Your task to perform on an android device: manage bookmarks in the chrome app Image 0: 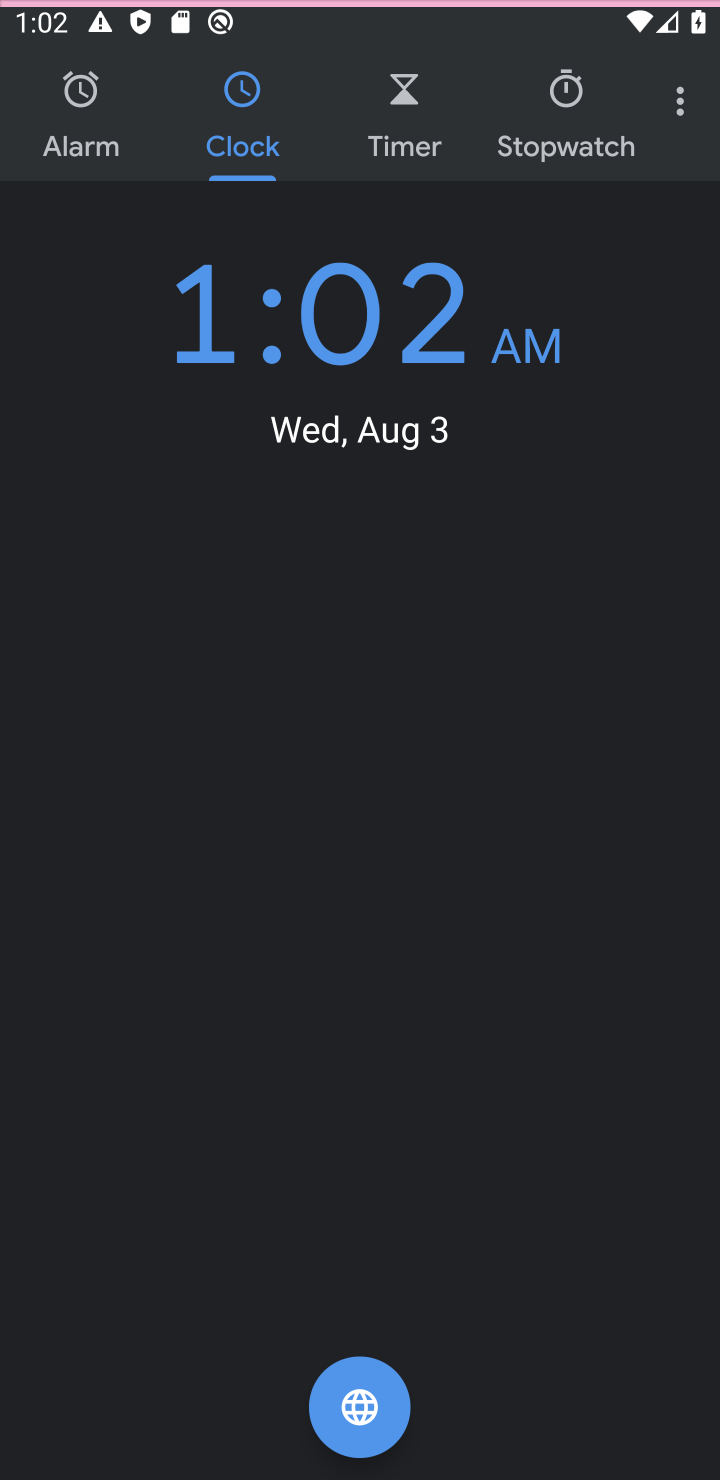
Step 0: press back button
Your task to perform on an android device: manage bookmarks in the chrome app Image 1: 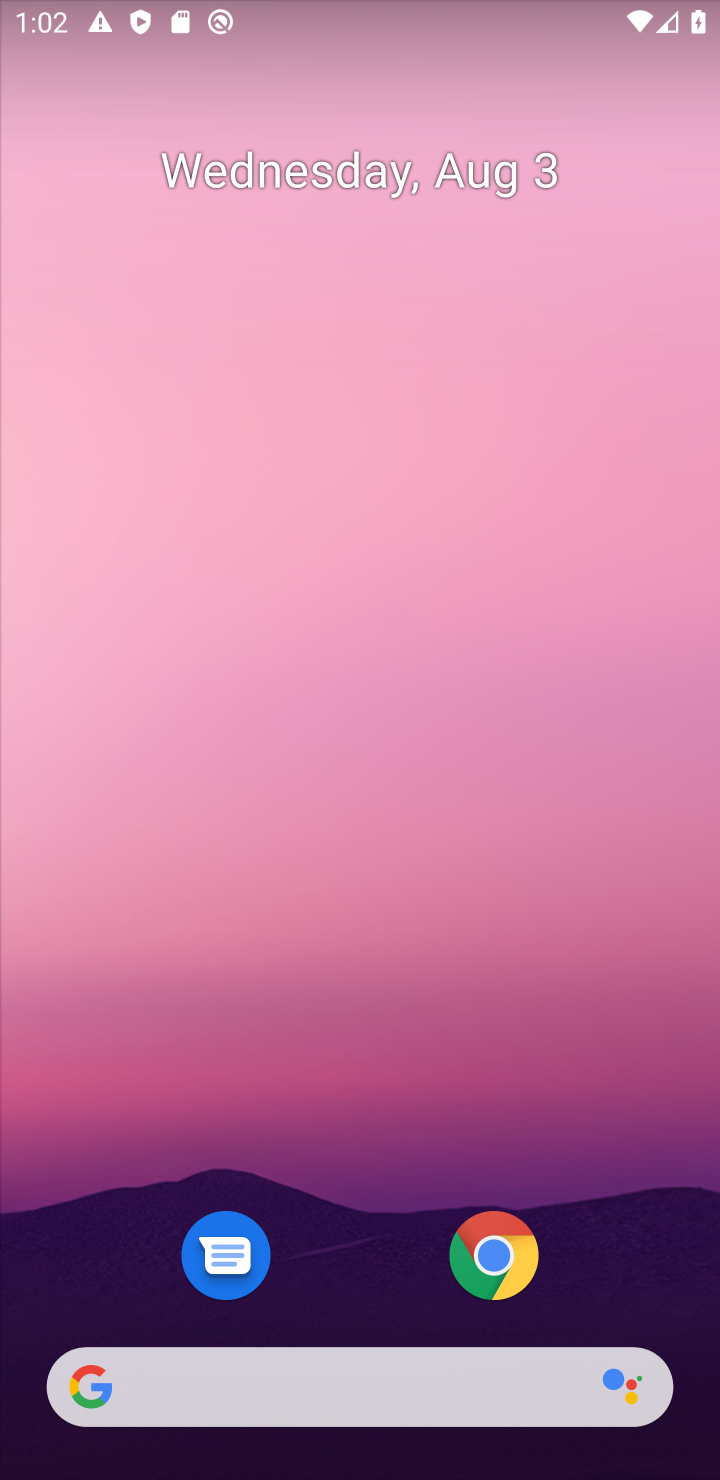
Step 1: click (520, 1257)
Your task to perform on an android device: manage bookmarks in the chrome app Image 2: 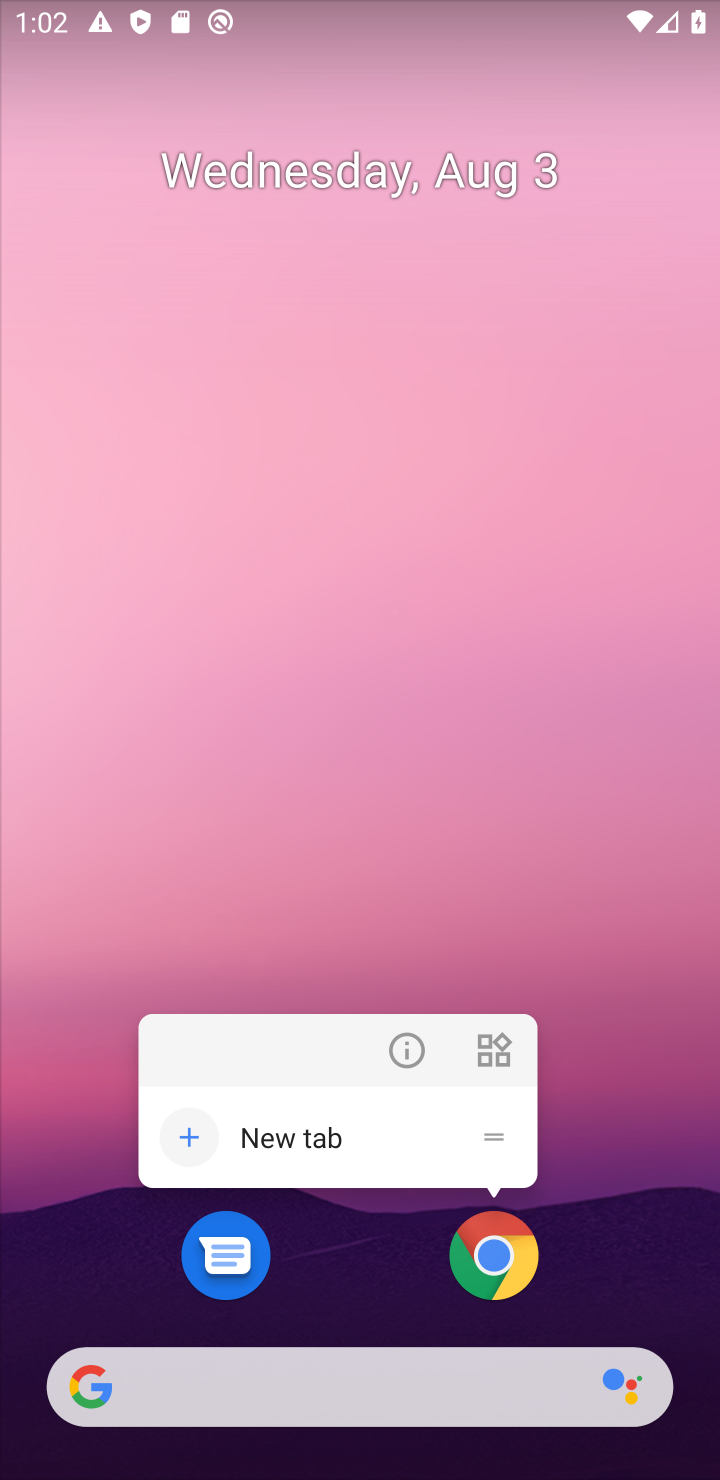
Step 2: click (520, 1257)
Your task to perform on an android device: manage bookmarks in the chrome app Image 3: 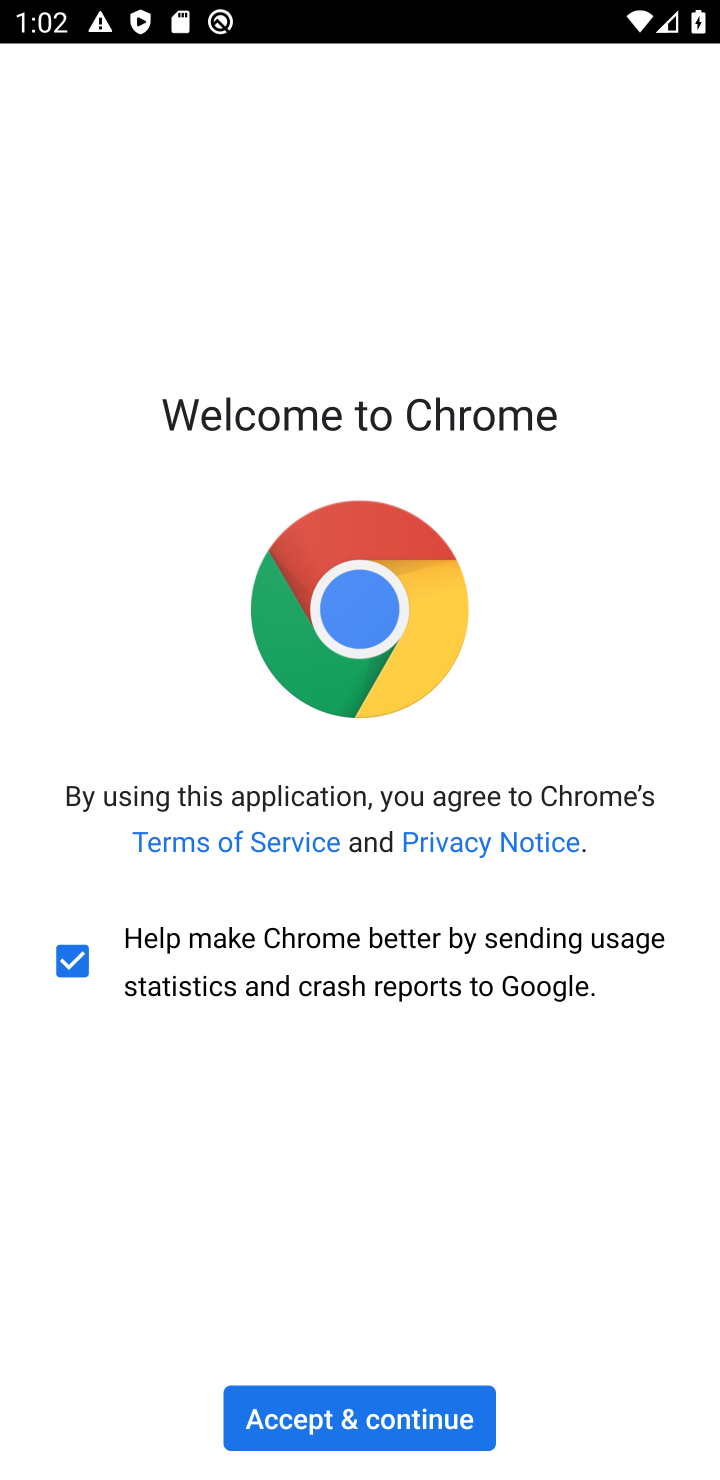
Step 3: click (397, 1416)
Your task to perform on an android device: manage bookmarks in the chrome app Image 4: 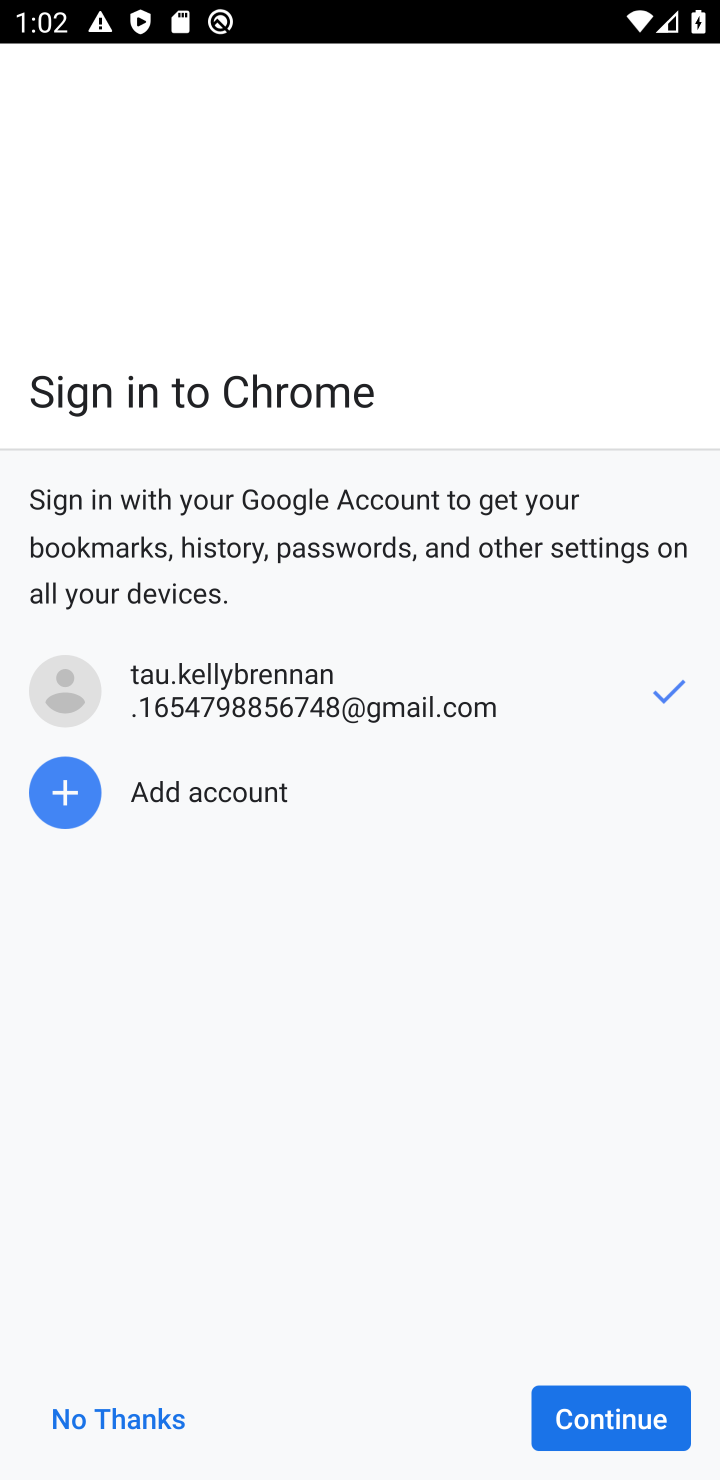
Step 4: click (557, 1410)
Your task to perform on an android device: manage bookmarks in the chrome app Image 5: 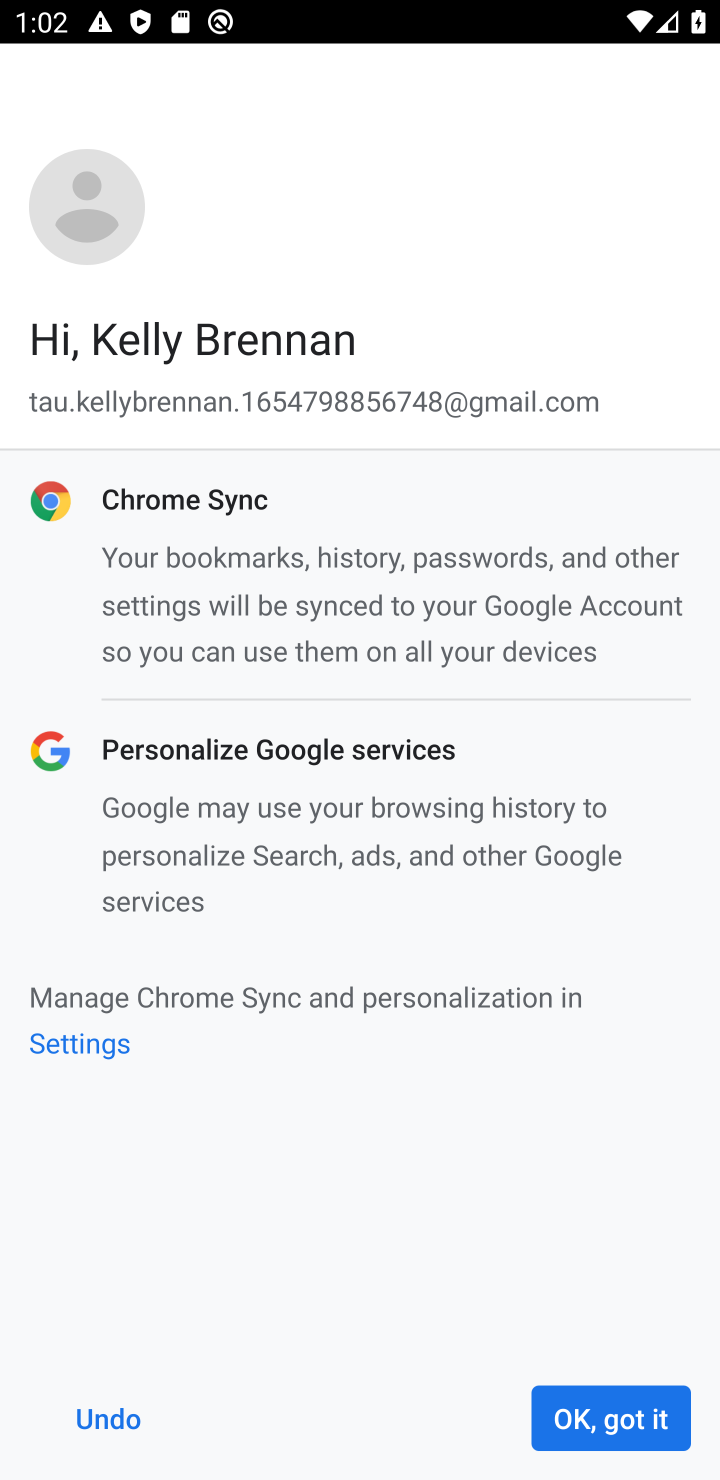
Step 5: click (596, 1430)
Your task to perform on an android device: manage bookmarks in the chrome app Image 6: 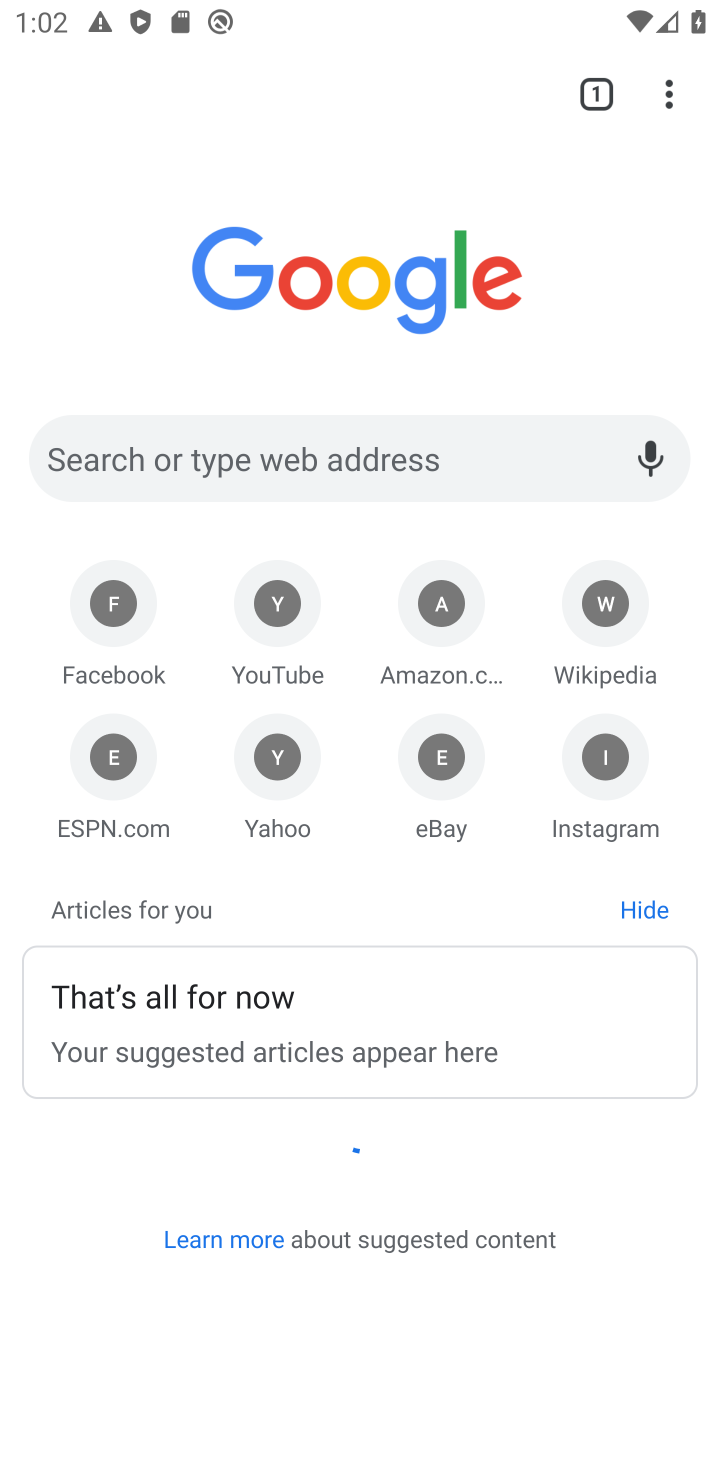
Step 6: click (668, 93)
Your task to perform on an android device: manage bookmarks in the chrome app Image 7: 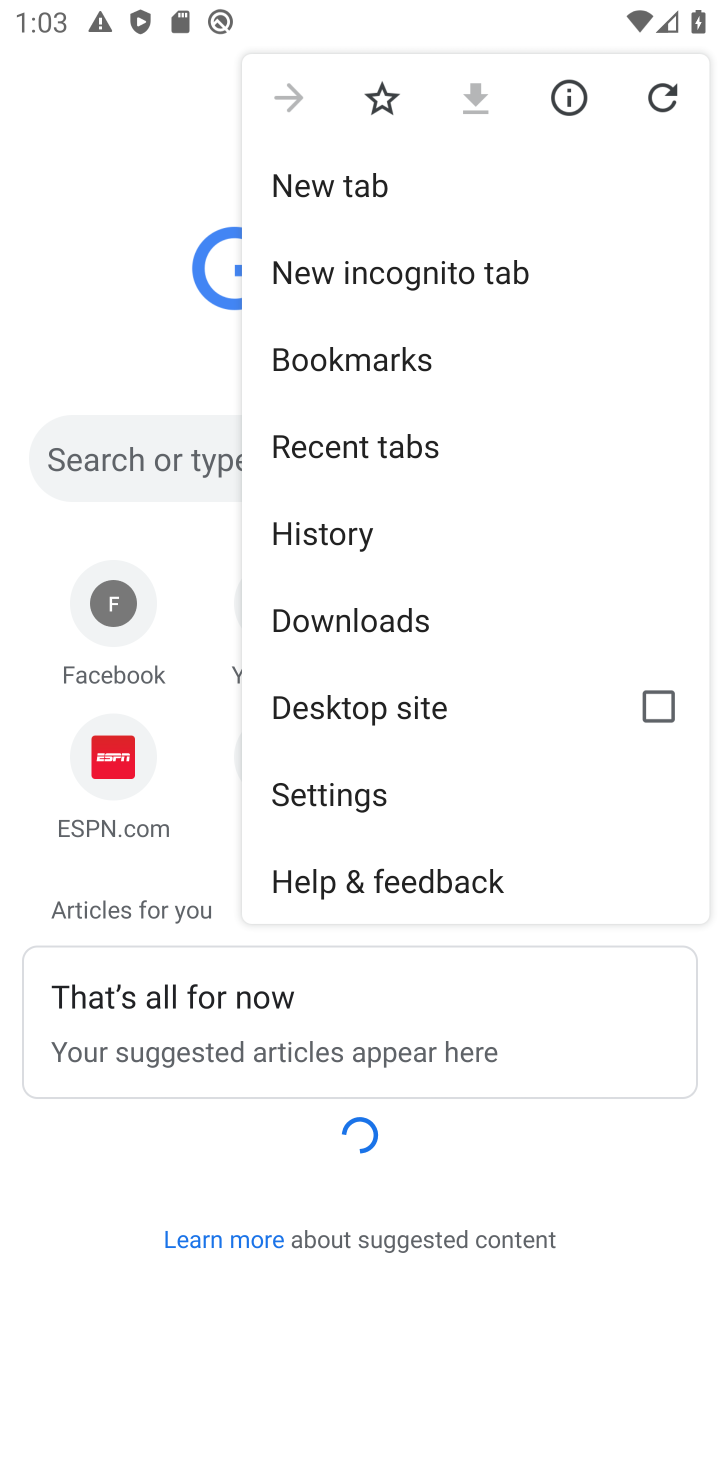
Step 7: click (497, 368)
Your task to perform on an android device: manage bookmarks in the chrome app Image 8: 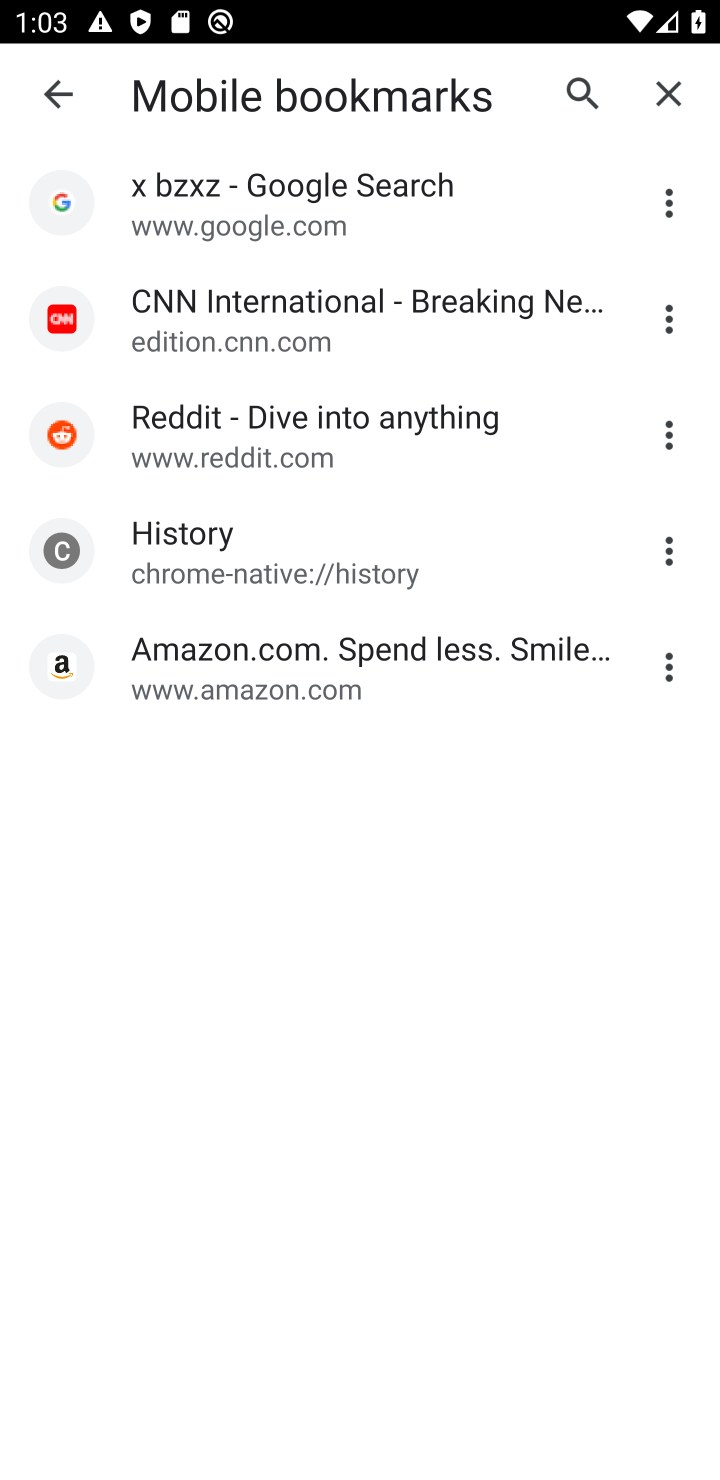
Step 8: click (342, 313)
Your task to perform on an android device: manage bookmarks in the chrome app Image 9: 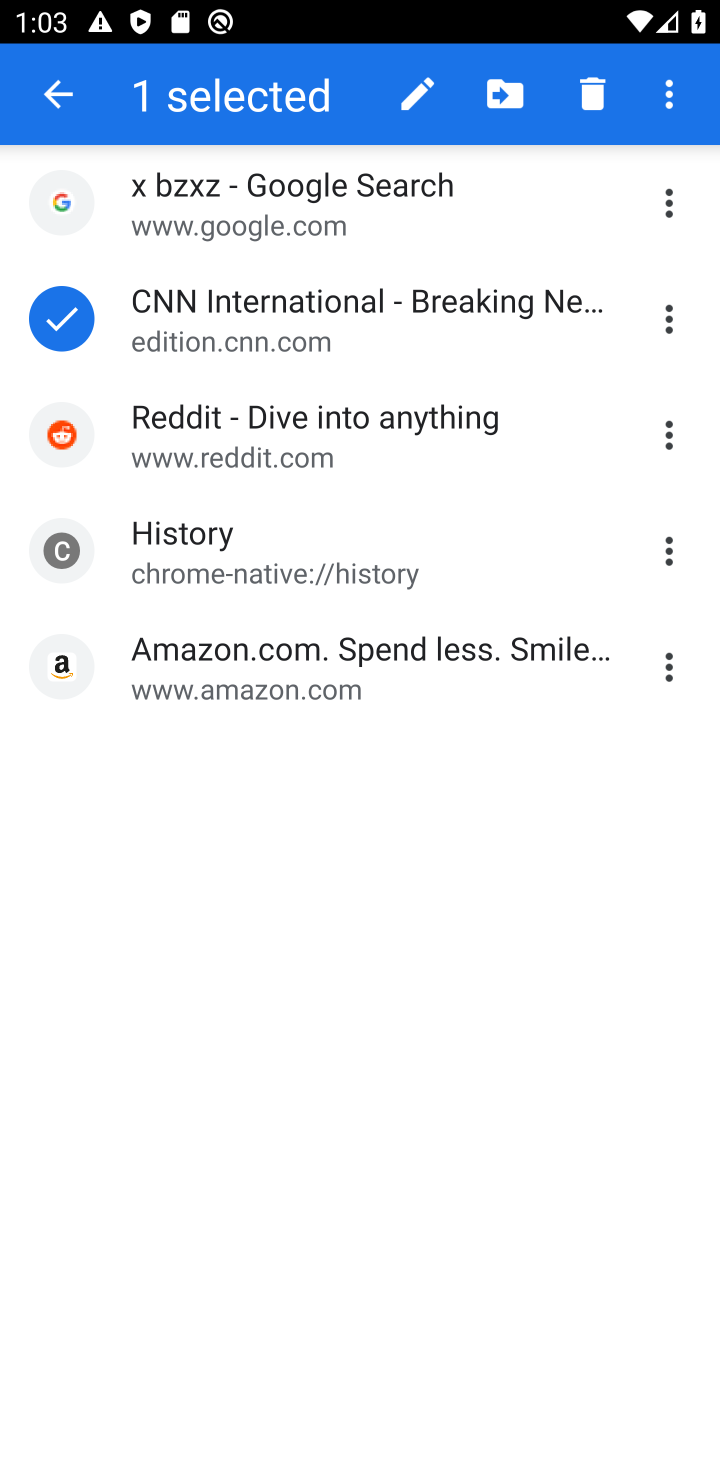
Step 9: click (515, 96)
Your task to perform on an android device: manage bookmarks in the chrome app Image 10: 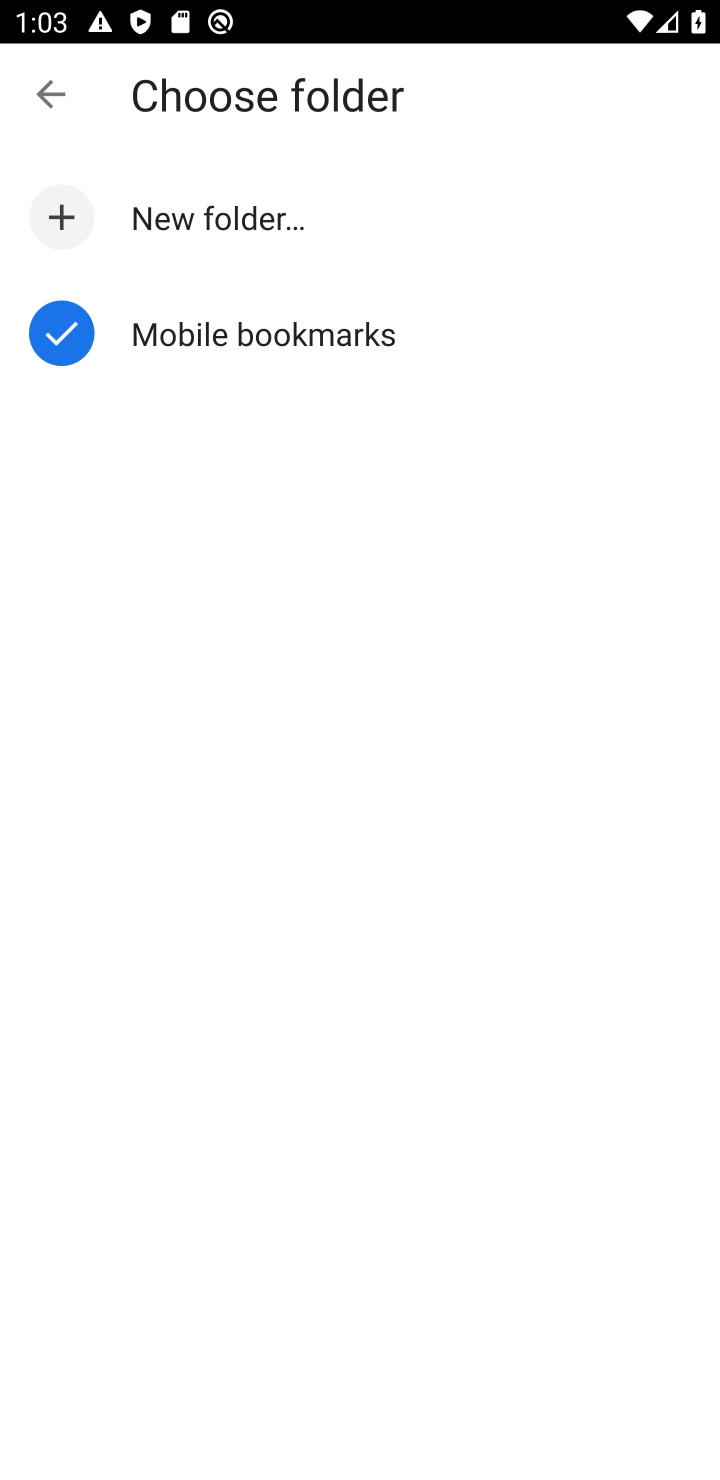
Step 10: click (297, 319)
Your task to perform on an android device: manage bookmarks in the chrome app Image 11: 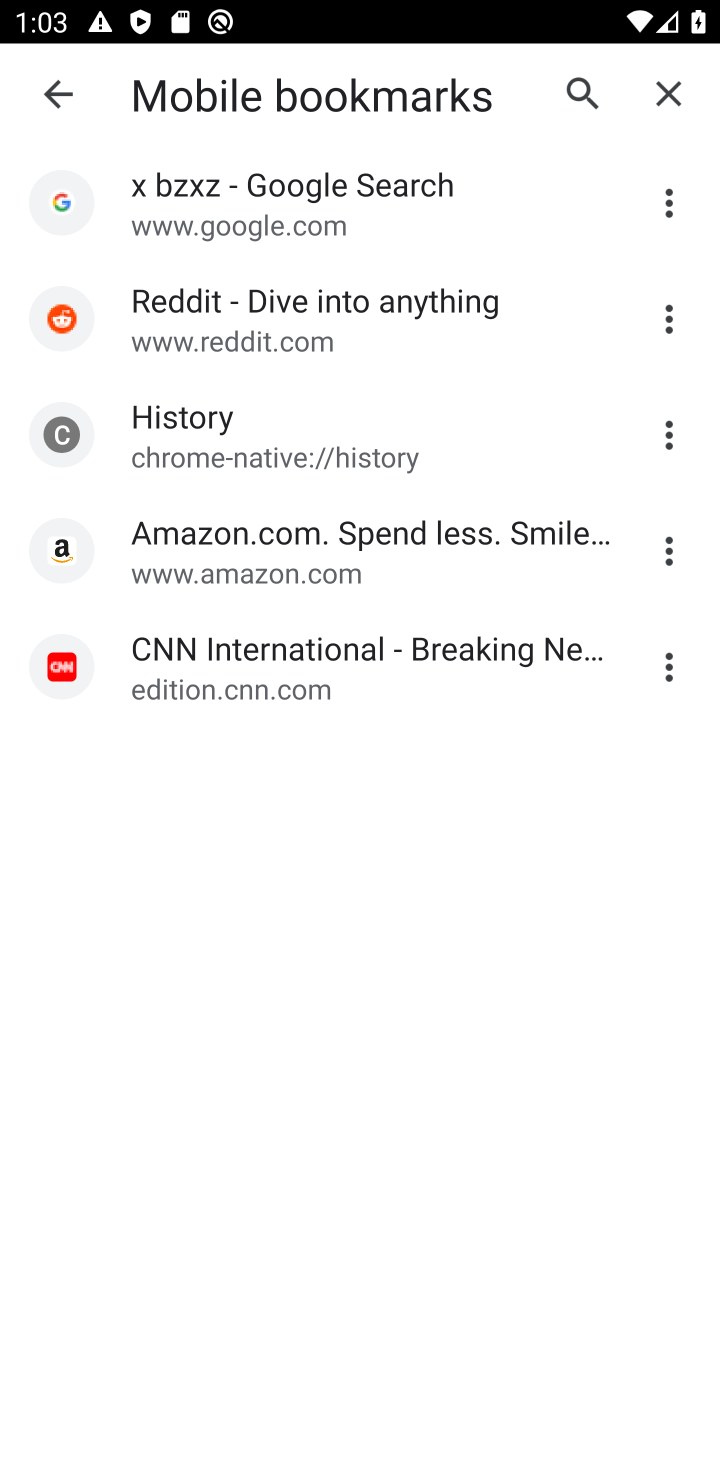
Step 11: task complete